Your task to perform on an android device: open a new tab in the chrome app Image 0: 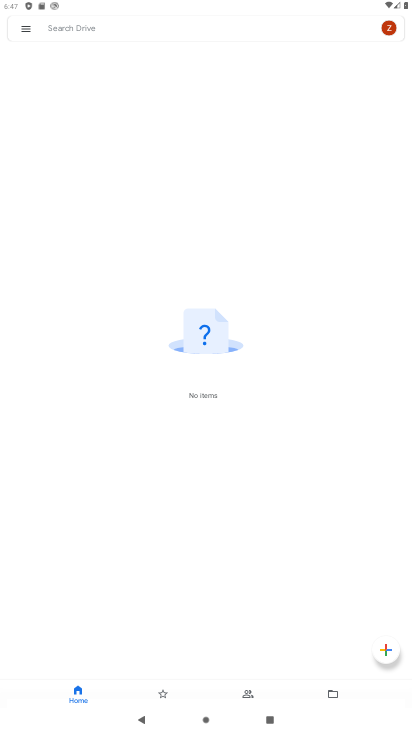
Step 0: press home button
Your task to perform on an android device: open a new tab in the chrome app Image 1: 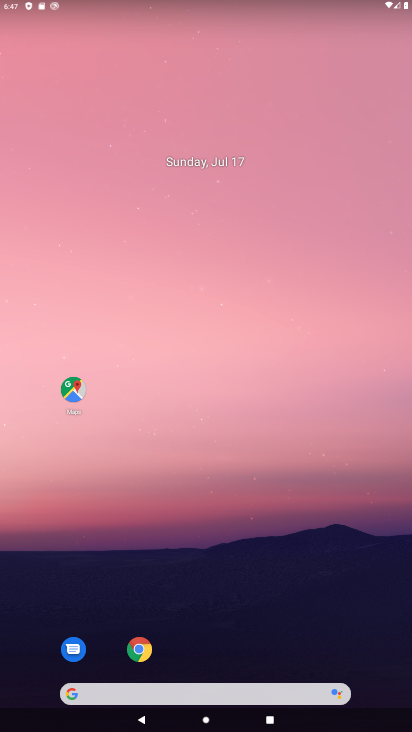
Step 1: click (134, 651)
Your task to perform on an android device: open a new tab in the chrome app Image 2: 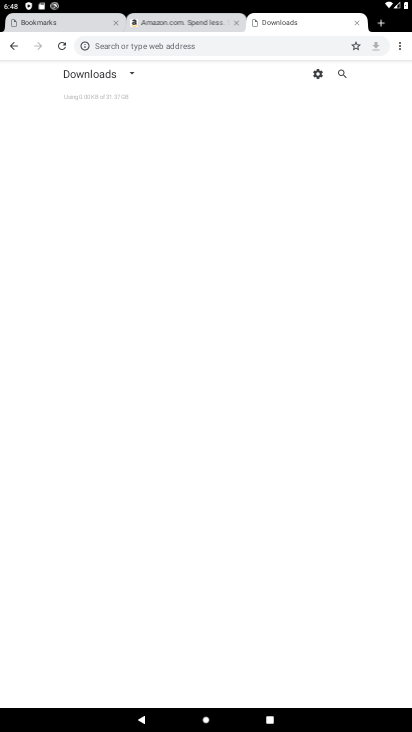
Step 2: click (401, 48)
Your task to perform on an android device: open a new tab in the chrome app Image 3: 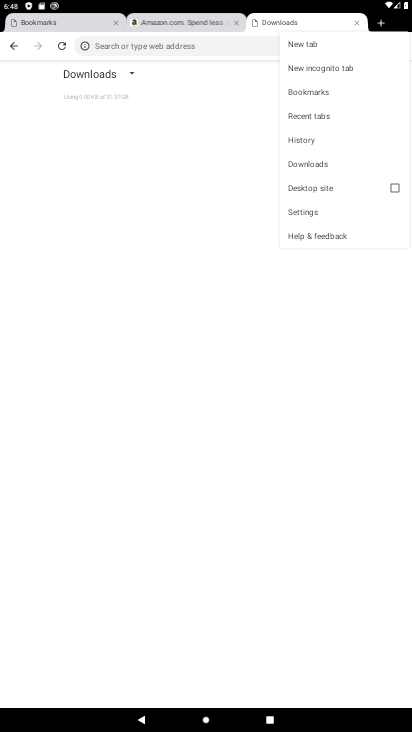
Step 3: click (305, 47)
Your task to perform on an android device: open a new tab in the chrome app Image 4: 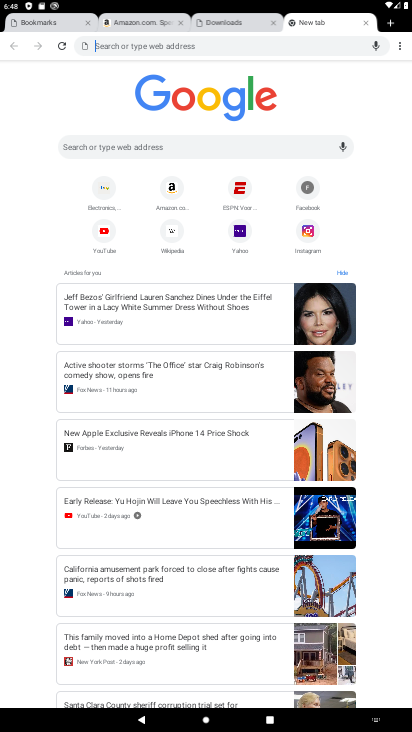
Step 4: task complete